Your task to perform on an android device: open app "Venmo" Image 0: 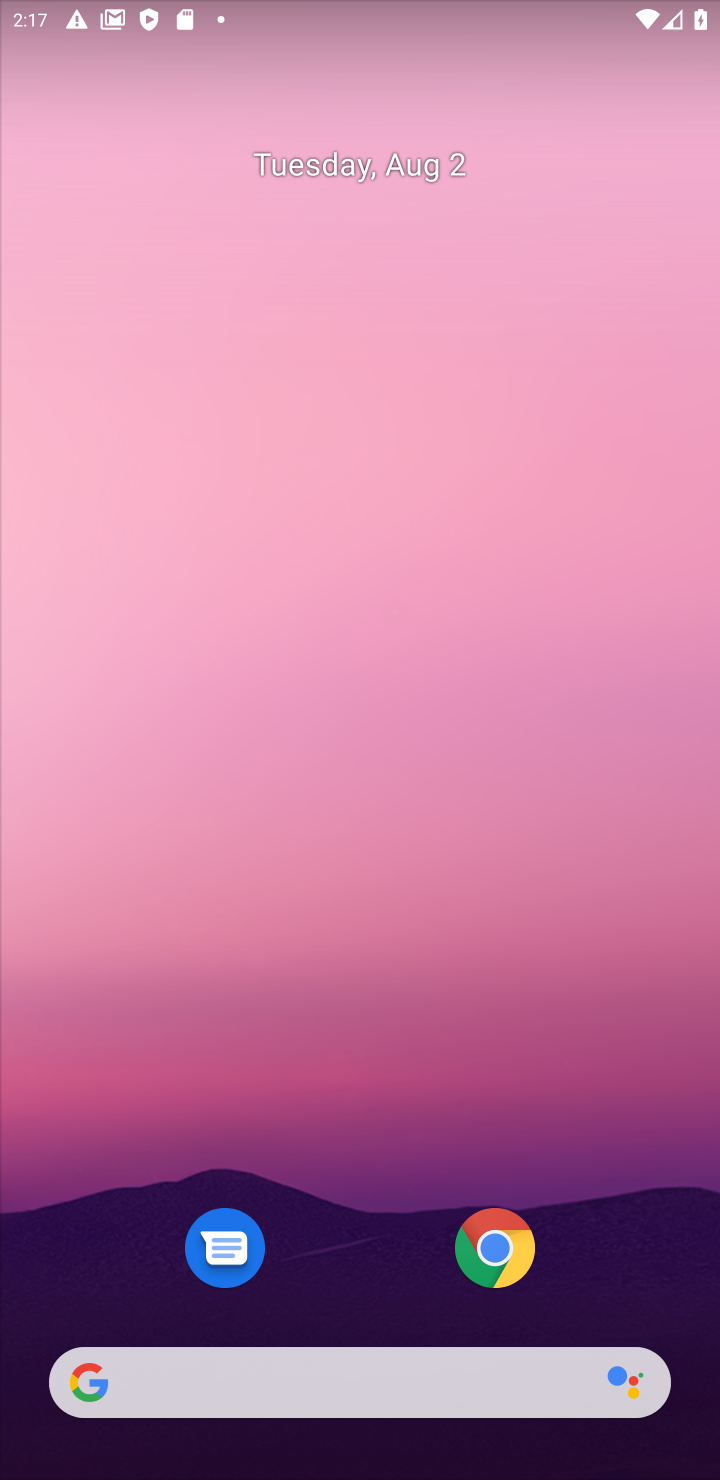
Step 0: drag from (330, 1236) to (302, 4)
Your task to perform on an android device: open app "Venmo" Image 1: 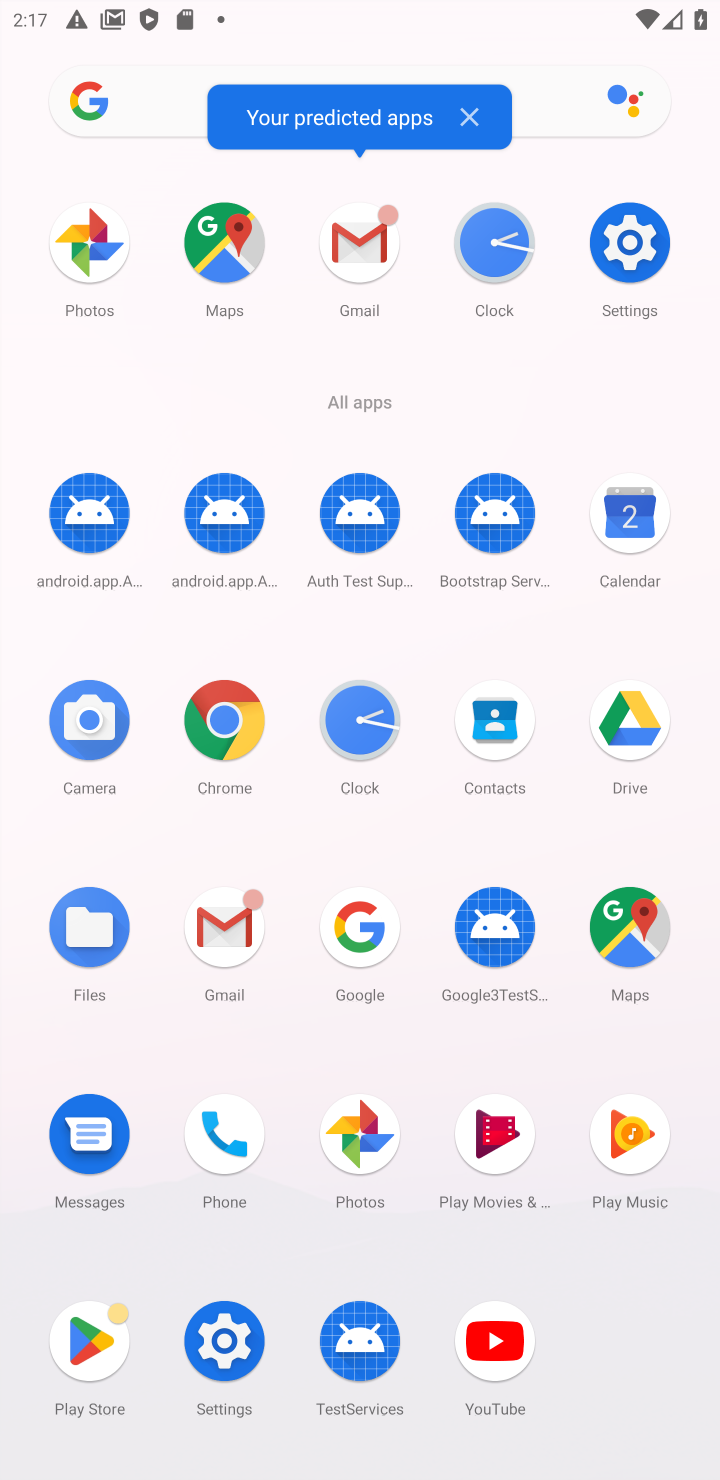
Step 1: click (75, 1358)
Your task to perform on an android device: open app "Venmo" Image 2: 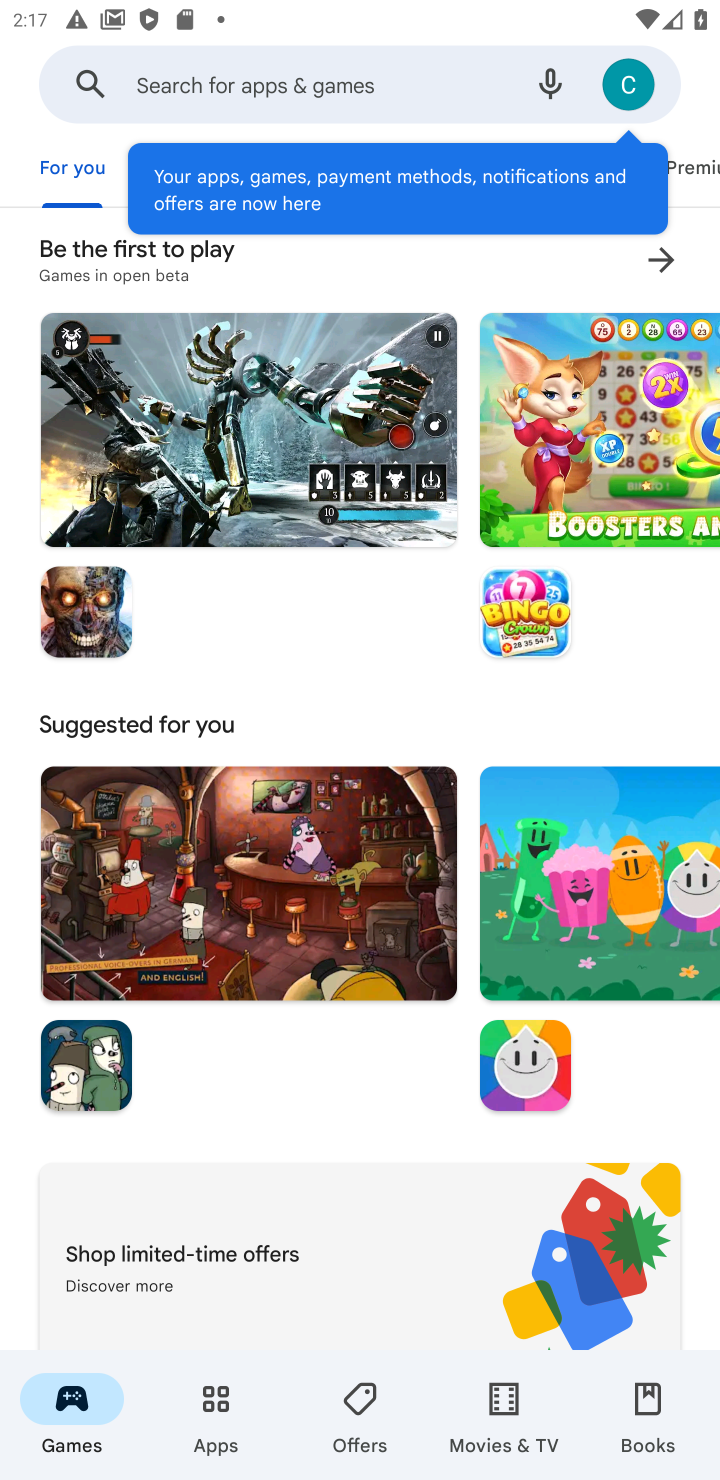
Step 2: click (253, 80)
Your task to perform on an android device: open app "Venmo" Image 3: 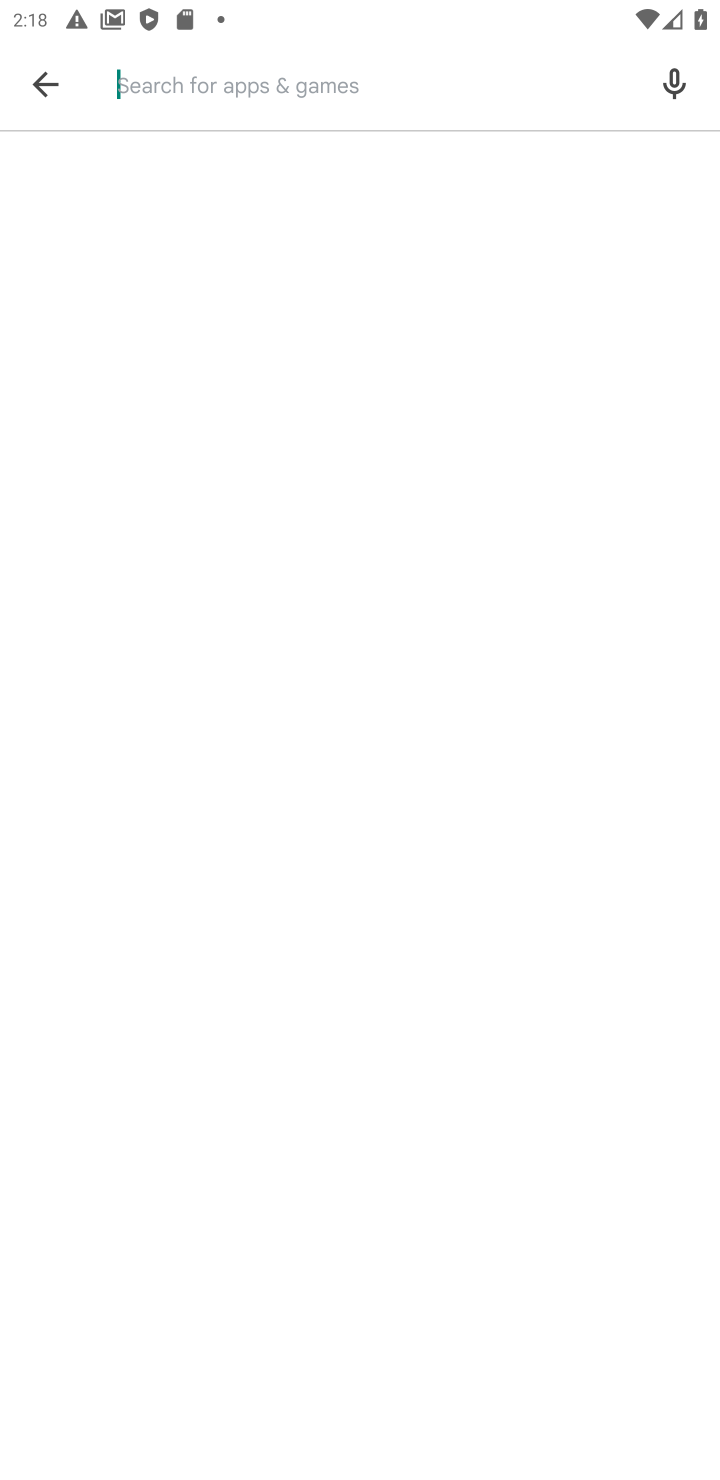
Step 3: click (675, 1357)
Your task to perform on an android device: open app "Venmo" Image 4: 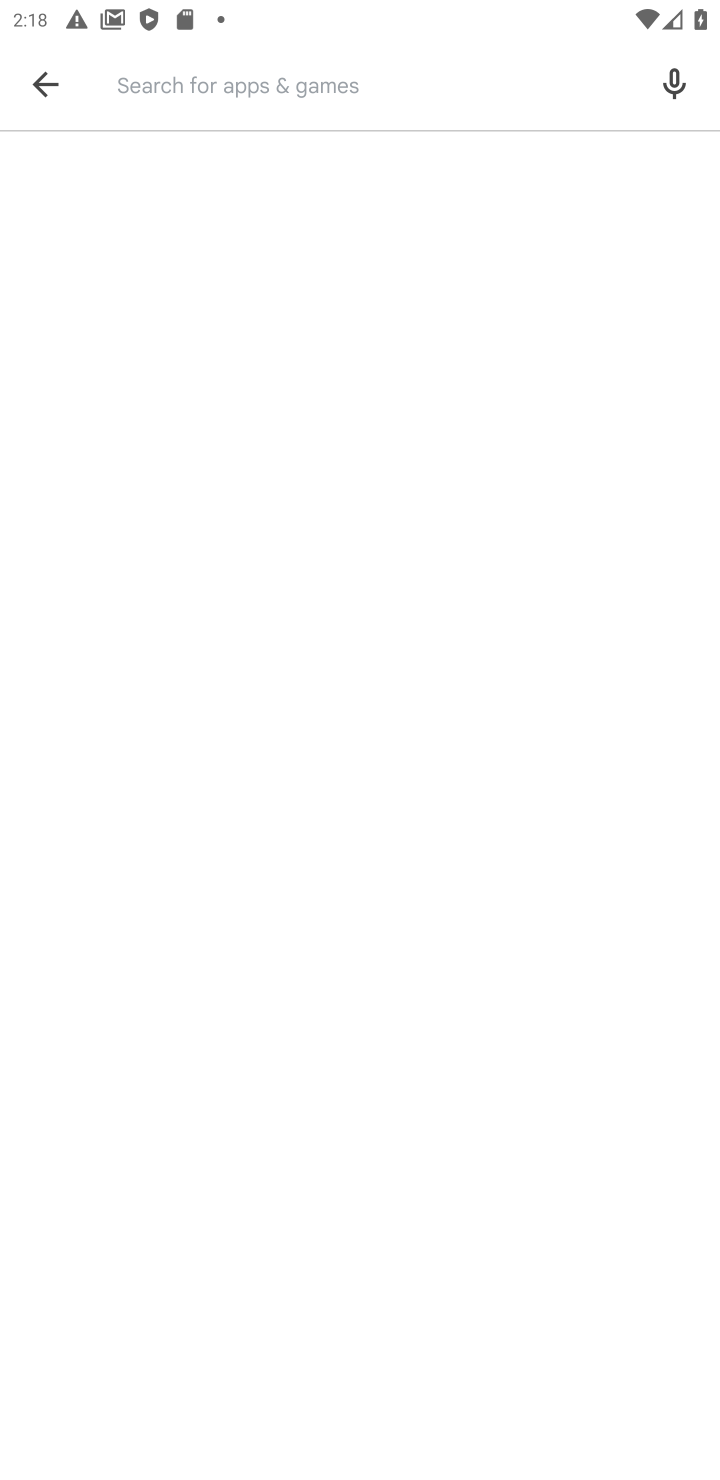
Step 4: type "Venmo"
Your task to perform on an android device: open app "Venmo" Image 5: 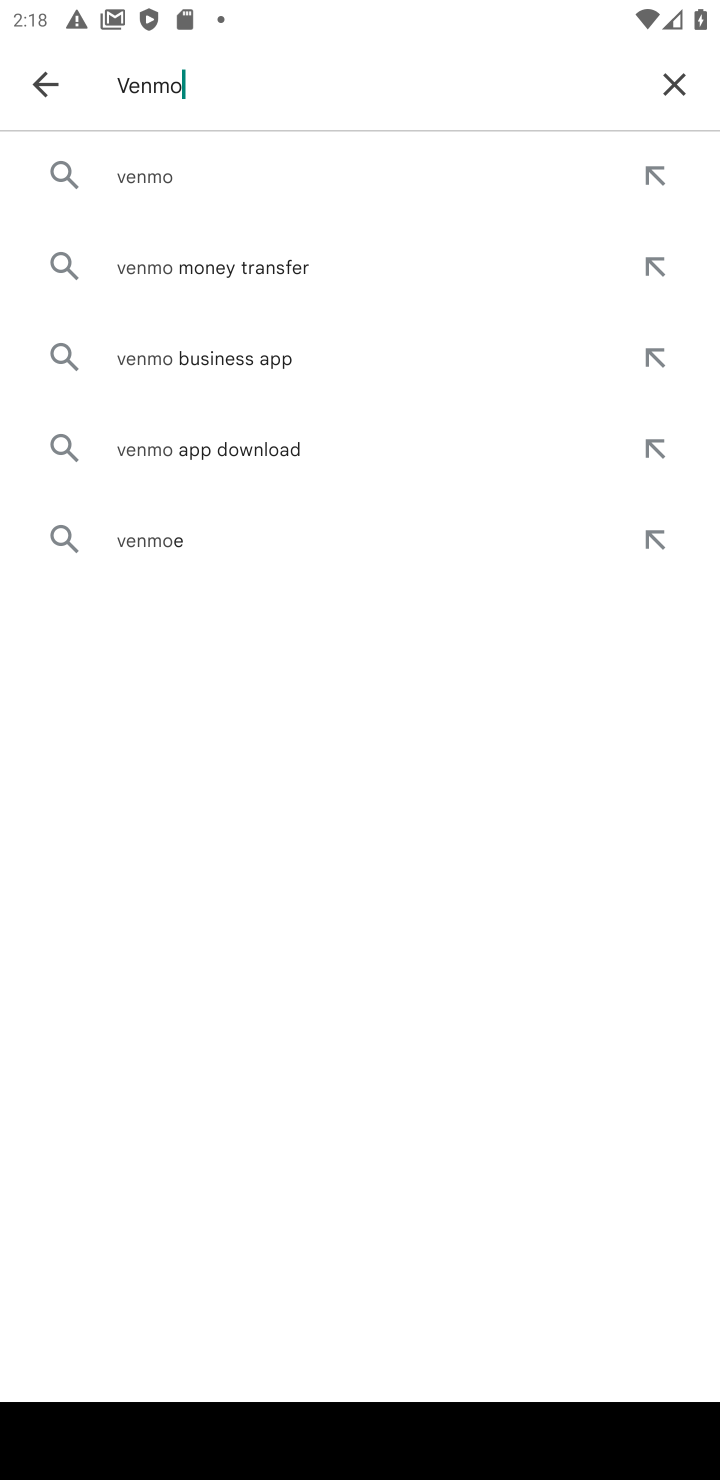
Step 5: click (175, 191)
Your task to perform on an android device: open app "Venmo" Image 6: 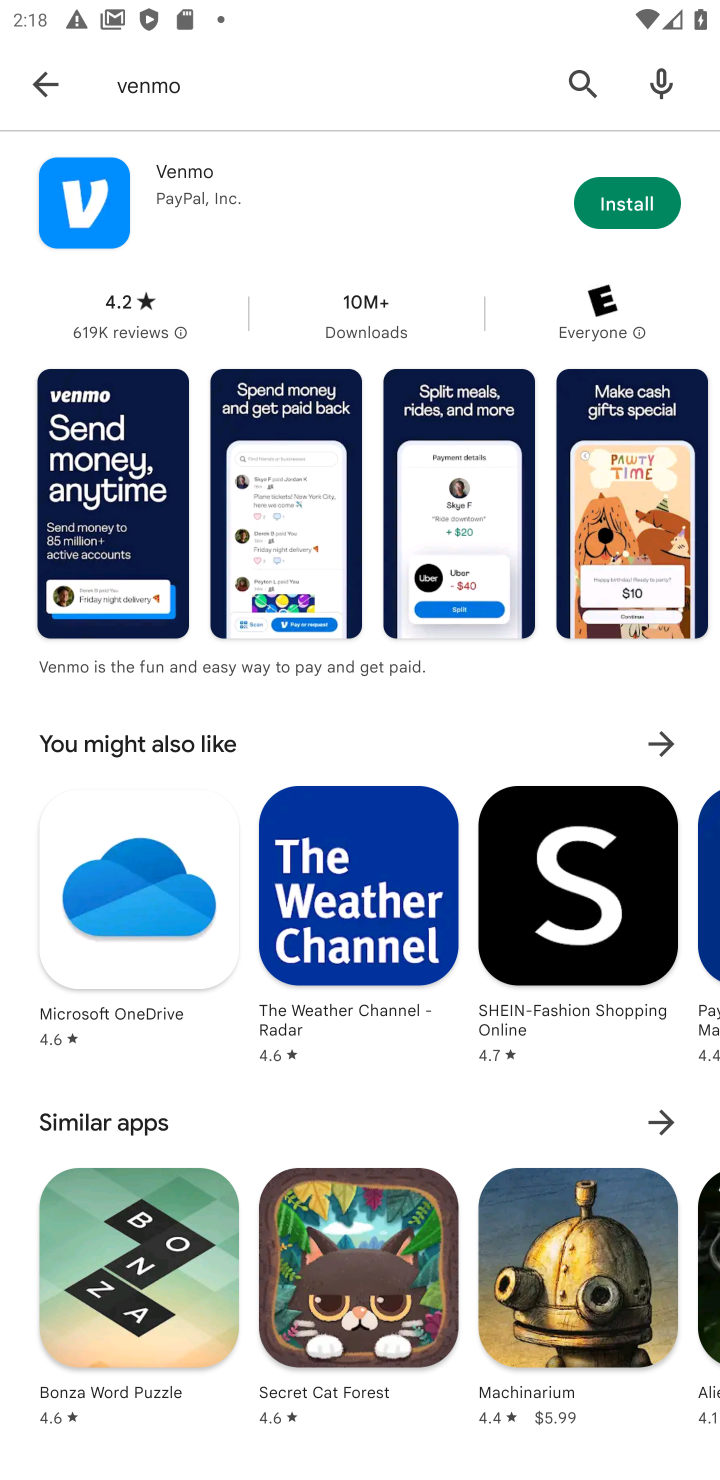
Step 6: click (639, 223)
Your task to perform on an android device: open app "Venmo" Image 7: 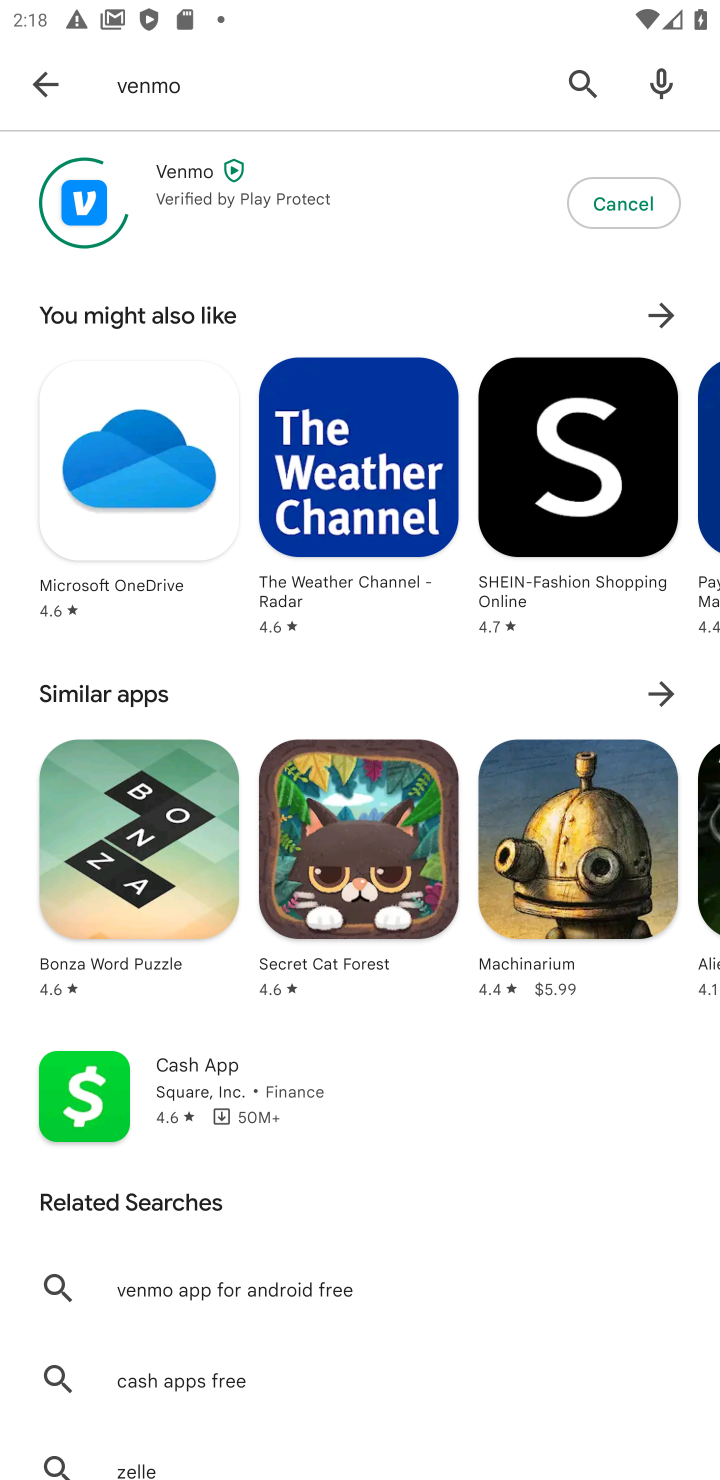
Step 7: click (637, 221)
Your task to perform on an android device: open app "Venmo" Image 8: 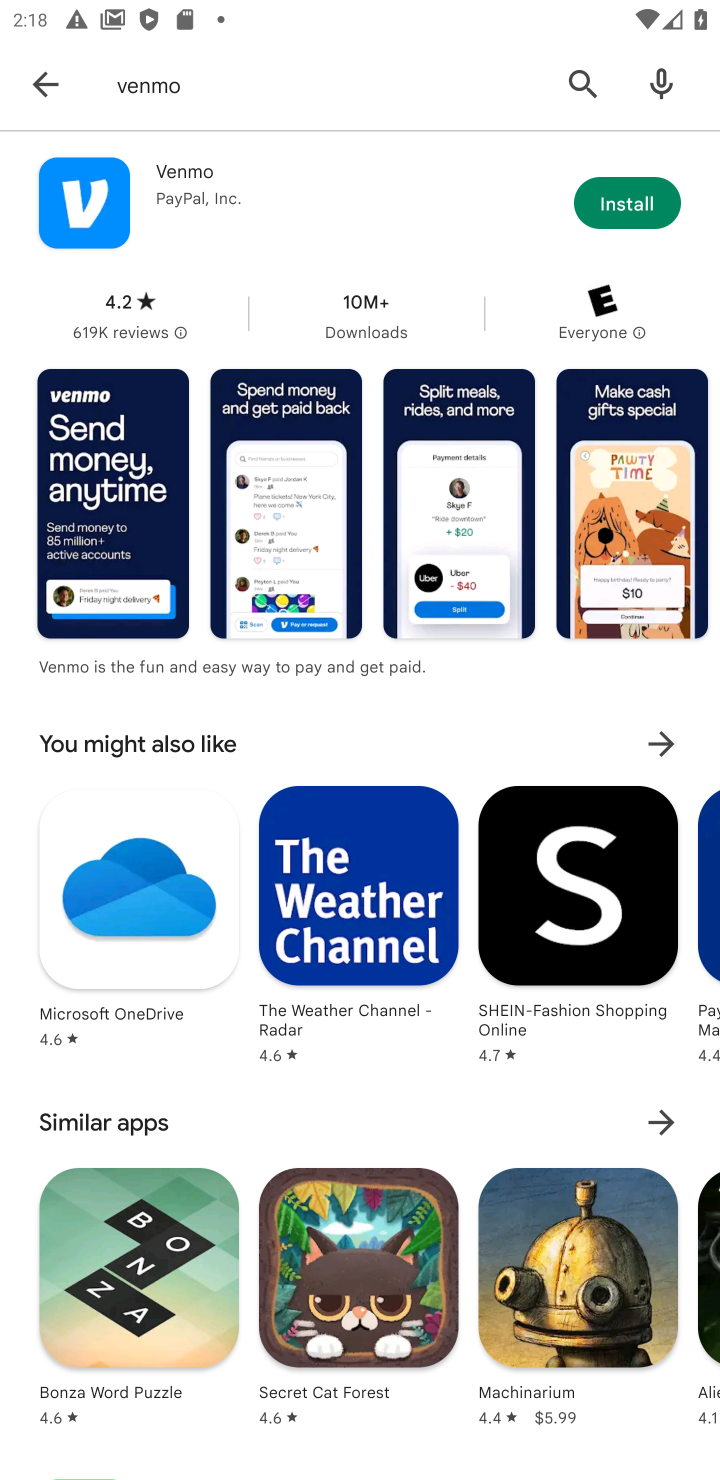
Step 8: task complete